Your task to perform on an android device: What's the weather? Image 0: 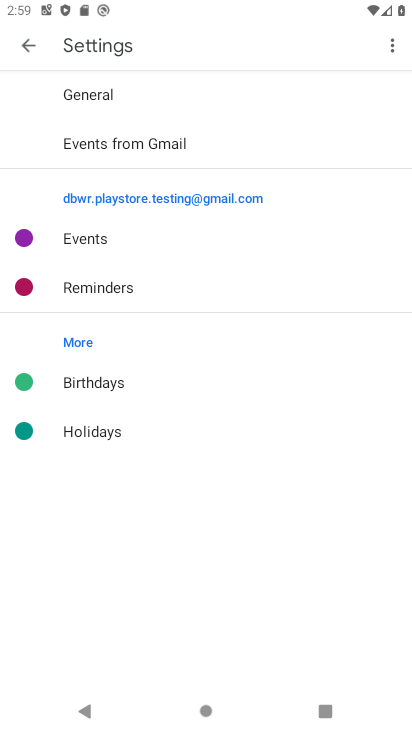
Step 0: press home button
Your task to perform on an android device: What's the weather? Image 1: 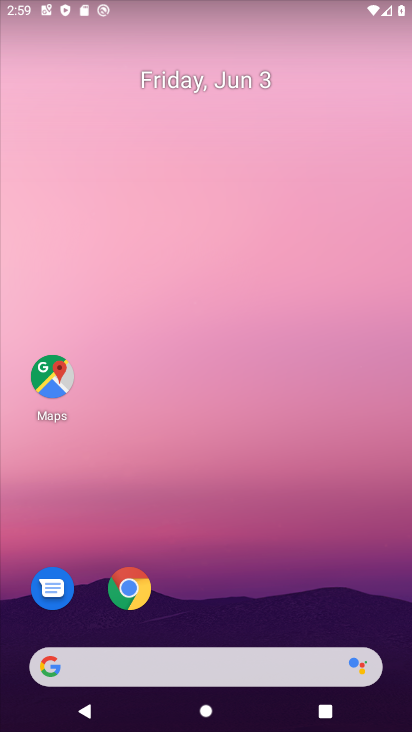
Step 1: click (101, 670)
Your task to perform on an android device: What's the weather? Image 2: 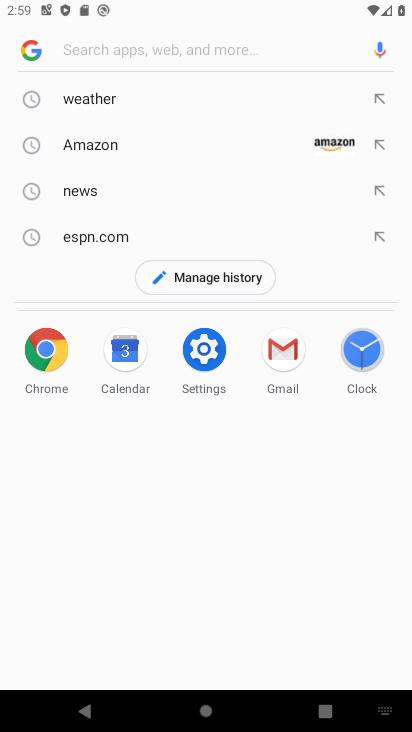
Step 2: click (133, 94)
Your task to perform on an android device: What's the weather? Image 3: 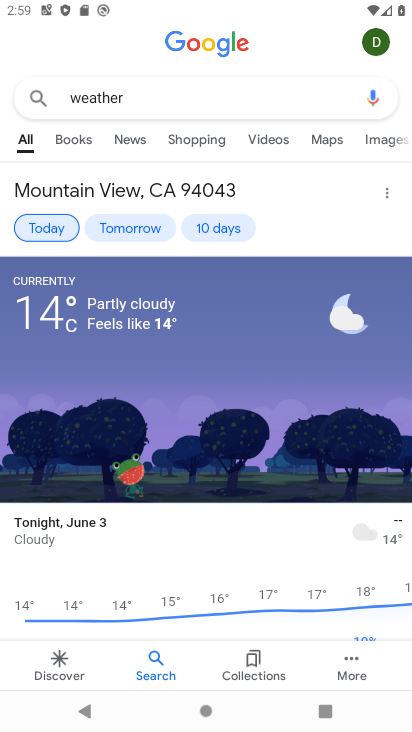
Step 3: task complete